Your task to perform on an android device: Open Amazon Image 0: 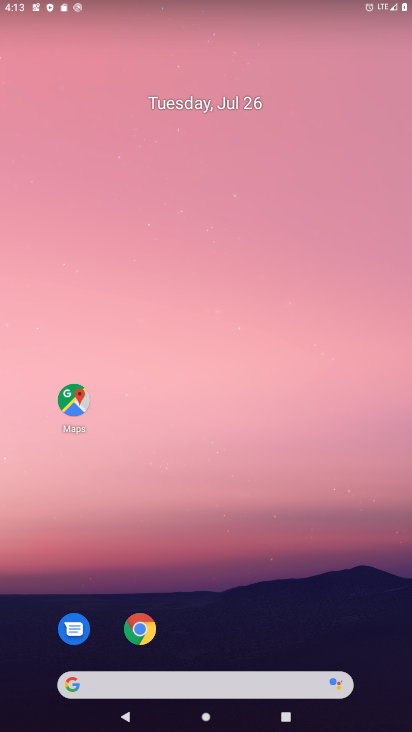
Step 0: click (143, 629)
Your task to perform on an android device: Open Amazon Image 1: 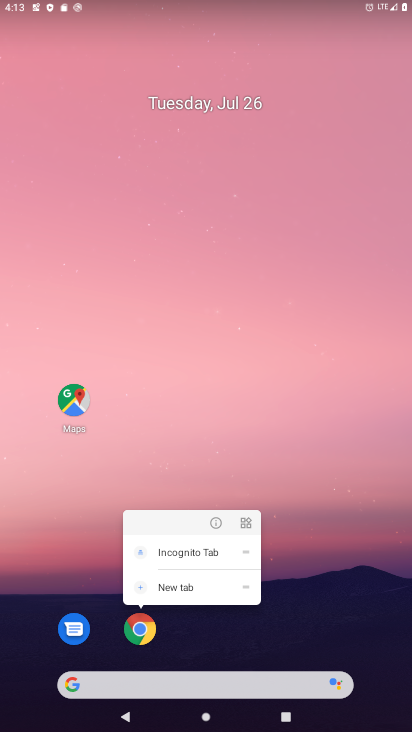
Step 1: click (143, 629)
Your task to perform on an android device: Open Amazon Image 2: 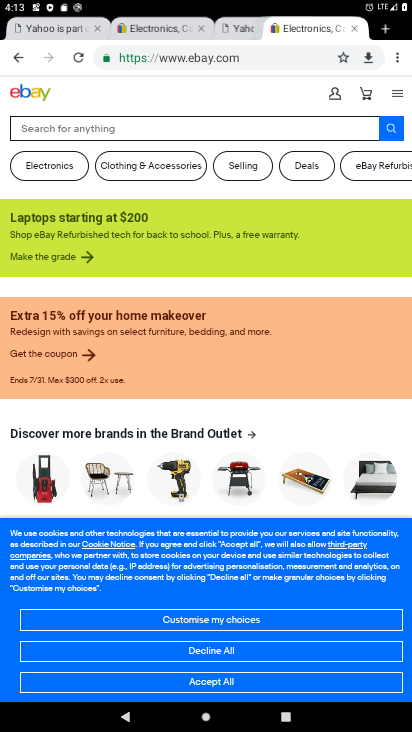
Step 2: click (398, 61)
Your task to perform on an android device: Open Amazon Image 3: 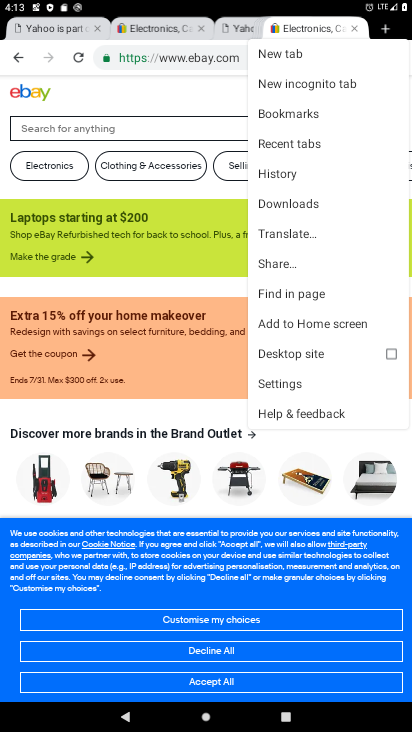
Step 3: click (293, 48)
Your task to perform on an android device: Open Amazon Image 4: 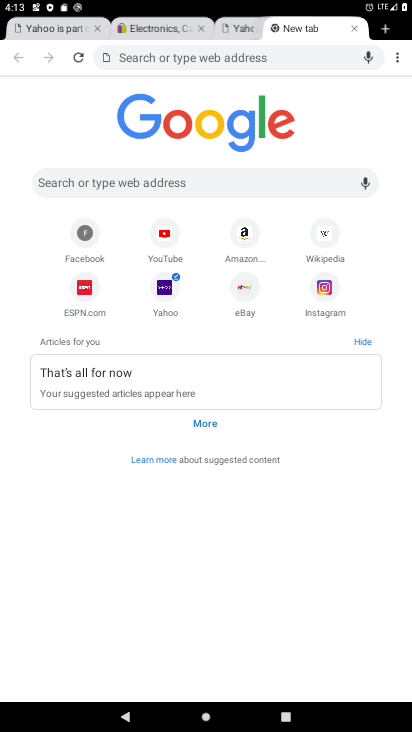
Step 4: click (241, 224)
Your task to perform on an android device: Open Amazon Image 5: 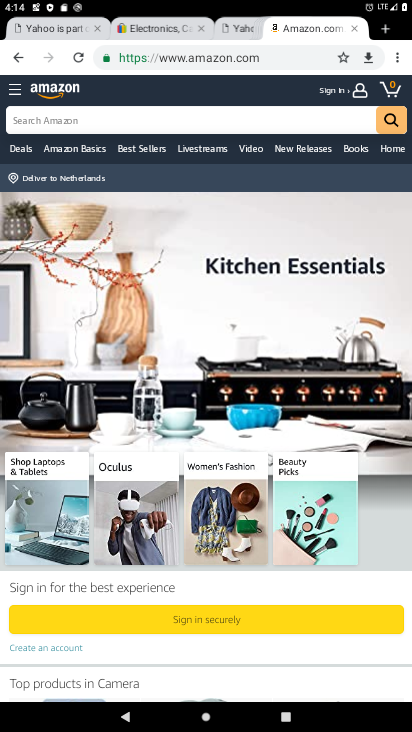
Step 5: task complete